Your task to perform on an android device: Show me recent news Image 0: 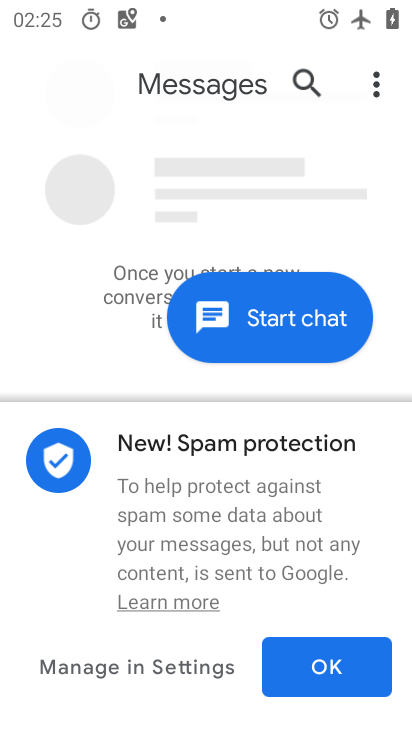
Step 0: press home button
Your task to perform on an android device: Show me recent news Image 1: 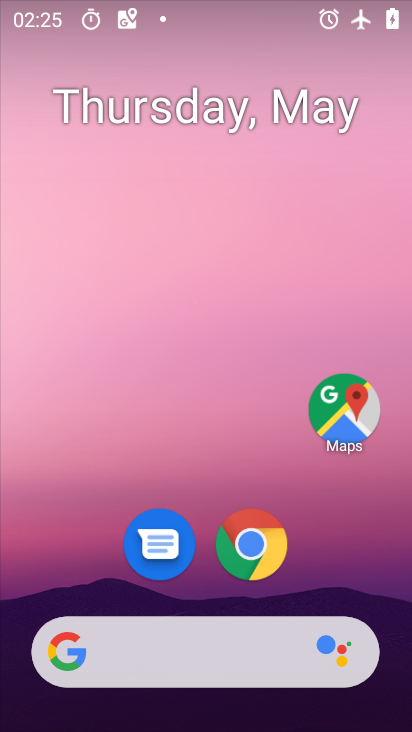
Step 1: drag from (120, 305) to (398, 353)
Your task to perform on an android device: Show me recent news Image 2: 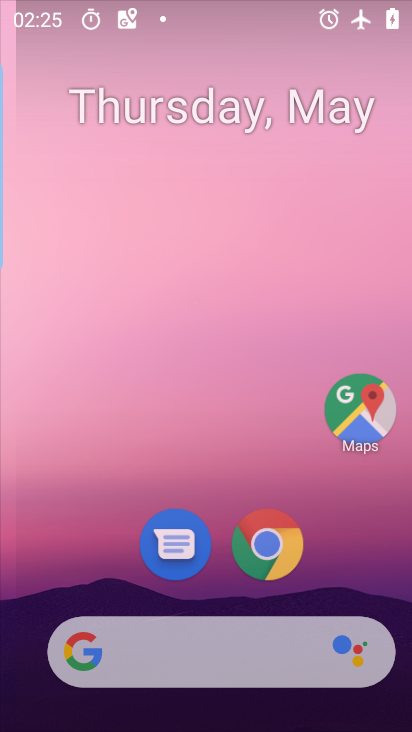
Step 2: drag from (115, 432) to (410, 468)
Your task to perform on an android device: Show me recent news Image 3: 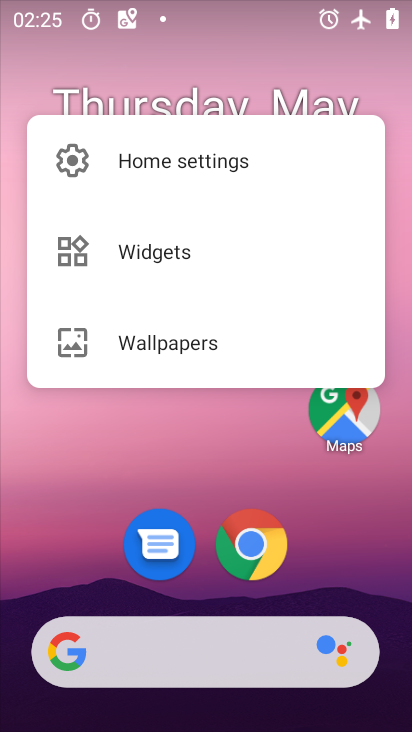
Step 3: click (289, 453)
Your task to perform on an android device: Show me recent news Image 4: 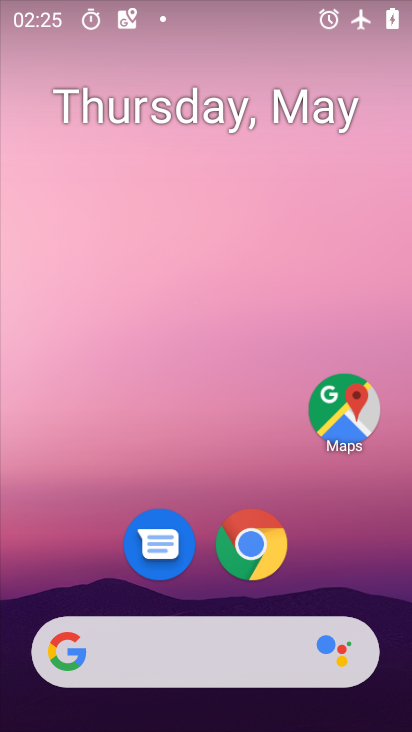
Step 4: task complete